Your task to perform on an android device: set the timer Image 0: 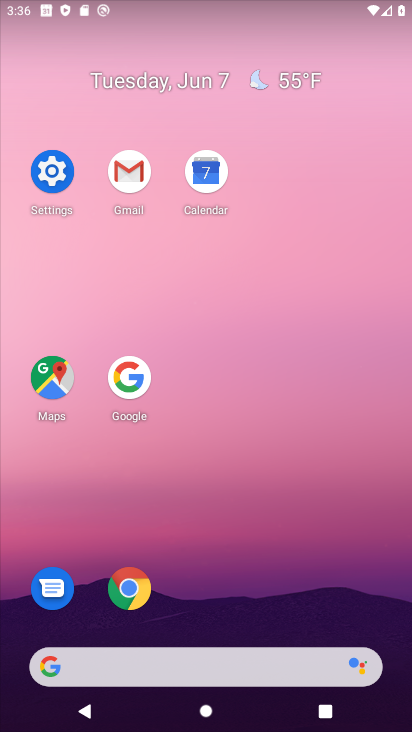
Step 0: drag from (199, 622) to (236, 140)
Your task to perform on an android device: set the timer Image 1: 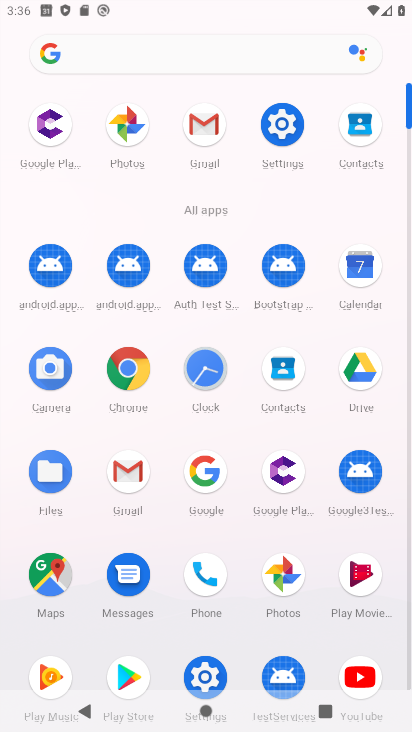
Step 1: click (216, 361)
Your task to perform on an android device: set the timer Image 2: 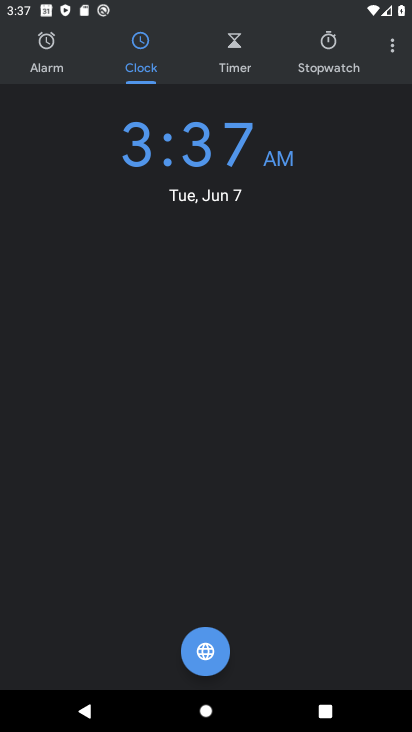
Step 2: click (252, 53)
Your task to perform on an android device: set the timer Image 3: 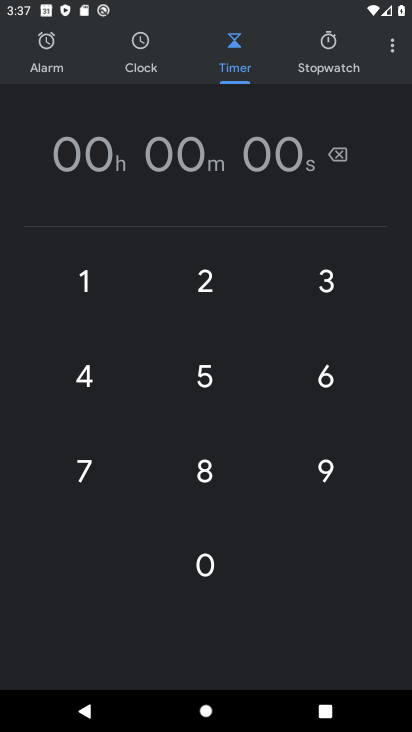
Step 3: click (208, 254)
Your task to perform on an android device: set the timer Image 4: 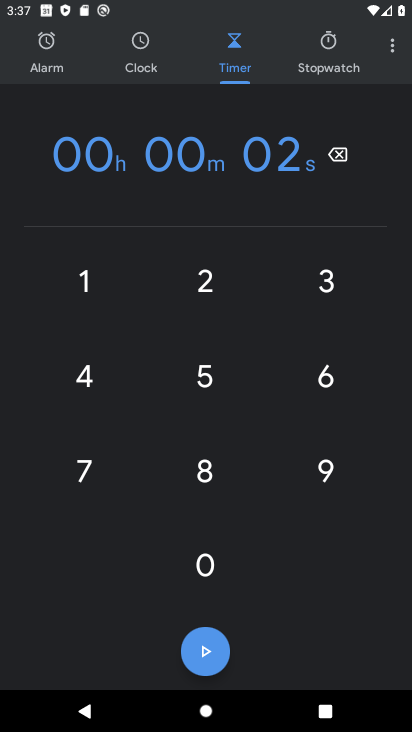
Step 4: click (208, 254)
Your task to perform on an android device: set the timer Image 5: 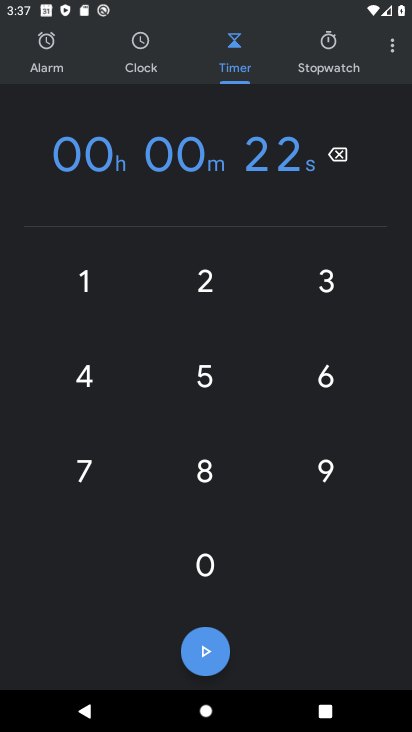
Step 5: click (203, 653)
Your task to perform on an android device: set the timer Image 6: 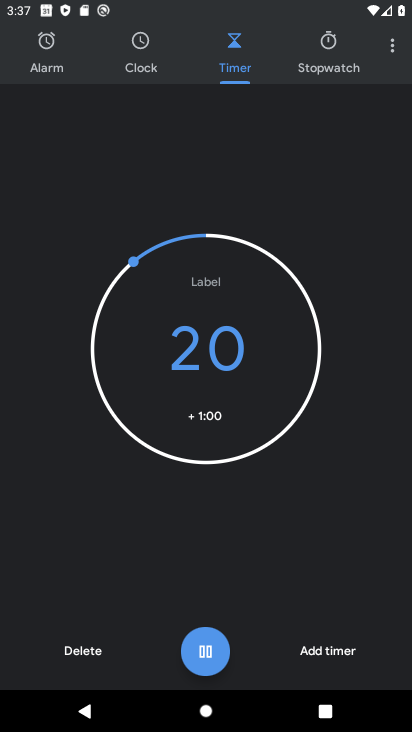
Step 6: task complete